Your task to perform on an android device: What's the weather going to be this weekend? Image 0: 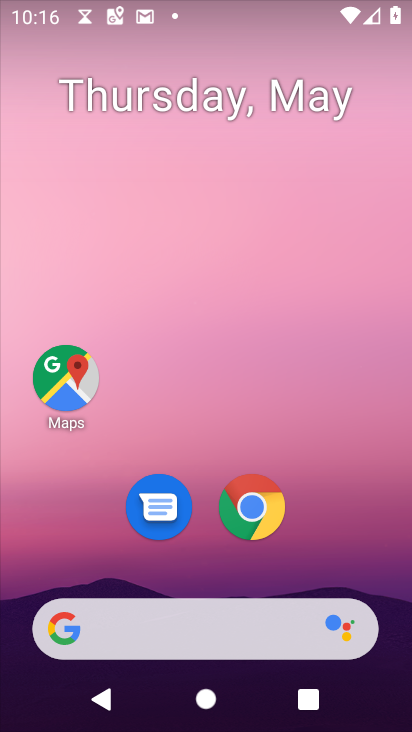
Step 0: click (215, 632)
Your task to perform on an android device: What's the weather going to be this weekend? Image 1: 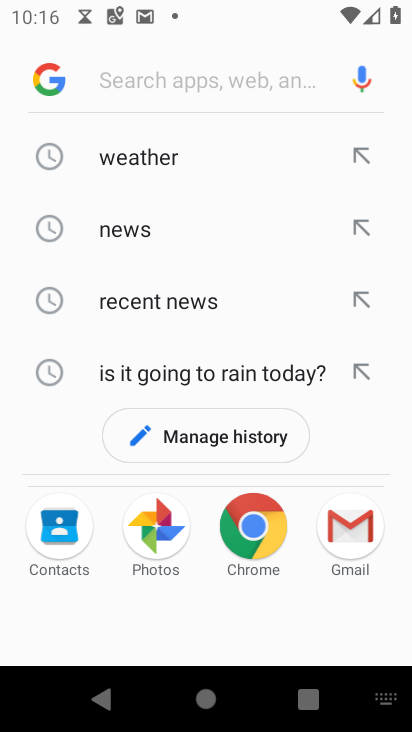
Step 1: type "weather this weekend"
Your task to perform on an android device: What's the weather going to be this weekend? Image 2: 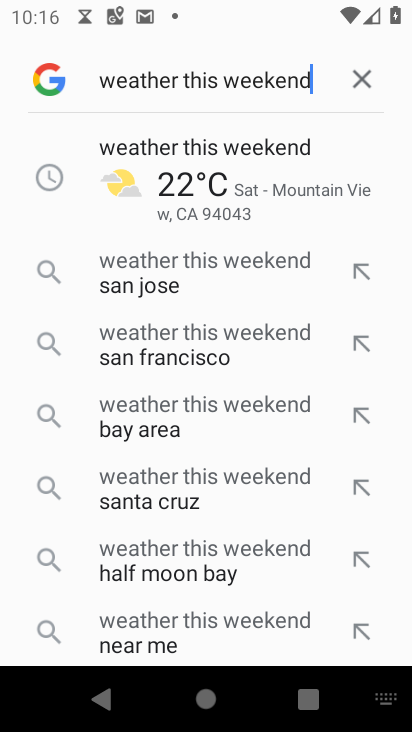
Step 2: click (225, 202)
Your task to perform on an android device: What's the weather going to be this weekend? Image 3: 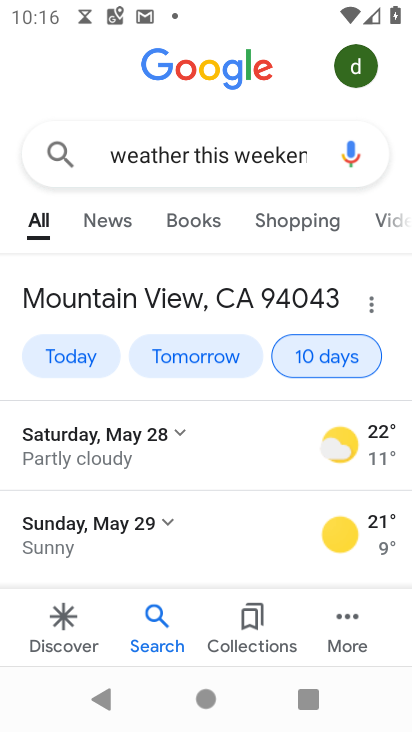
Step 3: task complete